Your task to perform on an android device: create a new album in the google photos Image 0: 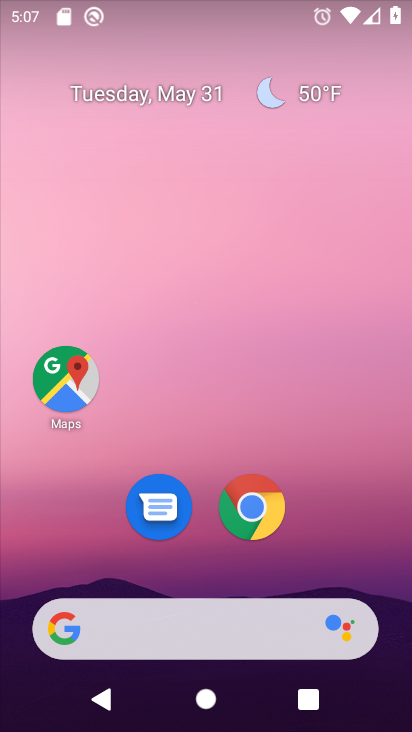
Step 0: drag from (327, 517) to (236, 65)
Your task to perform on an android device: create a new album in the google photos Image 1: 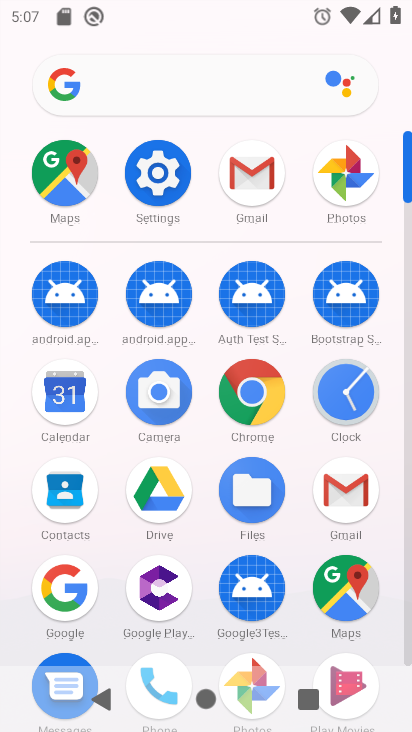
Step 1: click (337, 170)
Your task to perform on an android device: create a new album in the google photos Image 2: 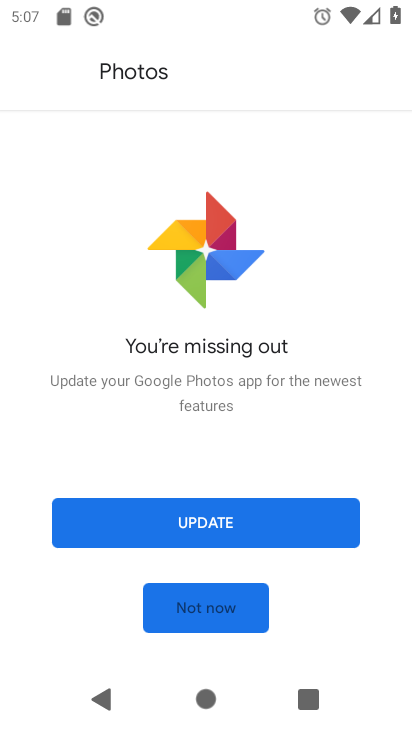
Step 2: click (226, 605)
Your task to perform on an android device: create a new album in the google photos Image 3: 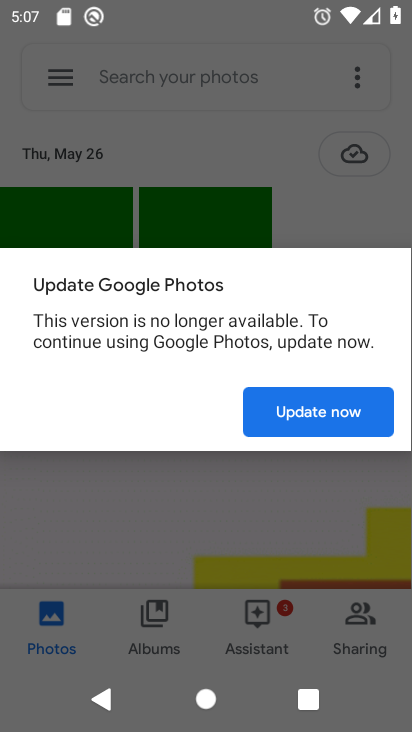
Step 3: click (341, 410)
Your task to perform on an android device: create a new album in the google photos Image 4: 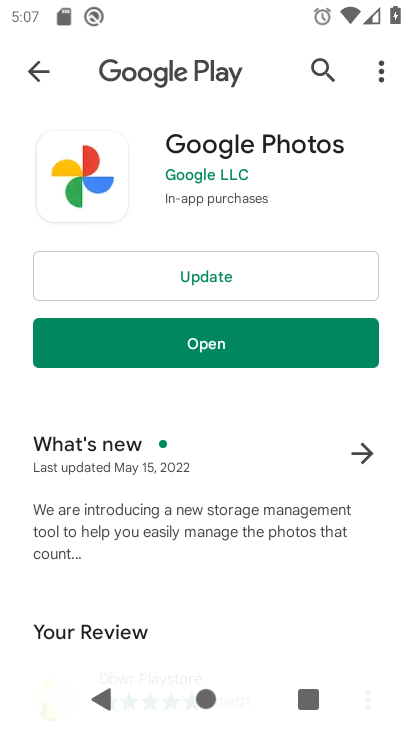
Step 4: click (311, 354)
Your task to perform on an android device: create a new album in the google photos Image 5: 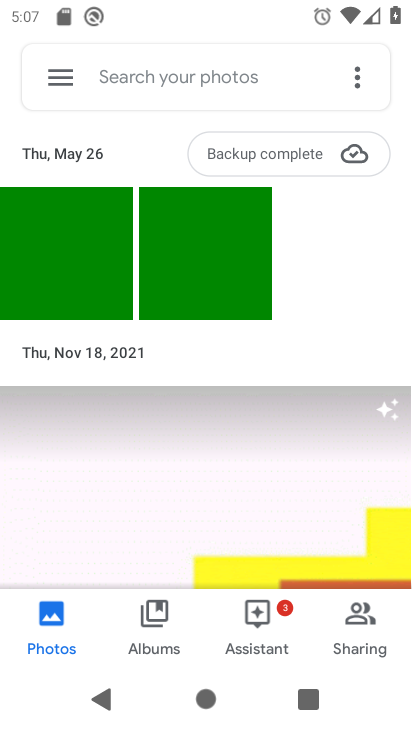
Step 5: click (159, 633)
Your task to perform on an android device: create a new album in the google photos Image 6: 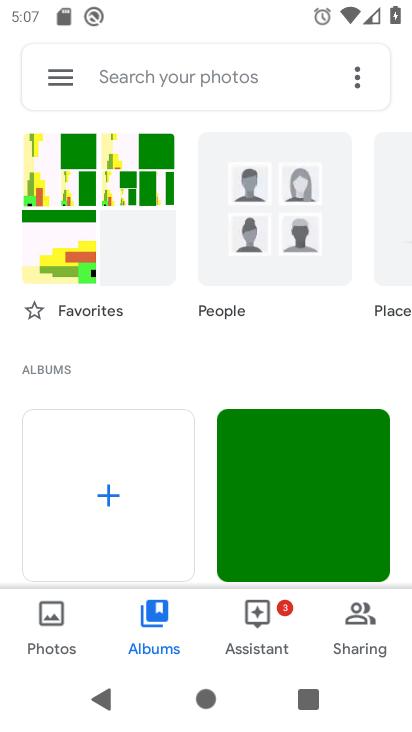
Step 6: click (111, 490)
Your task to perform on an android device: create a new album in the google photos Image 7: 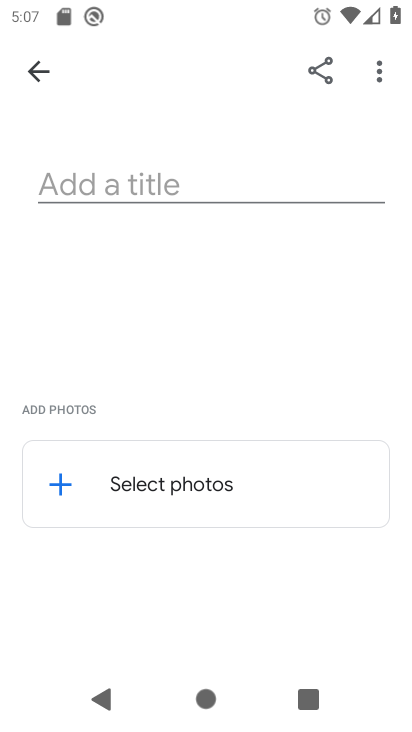
Step 7: click (160, 176)
Your task to perform on an android device: create a new album in the google photos Image 8: 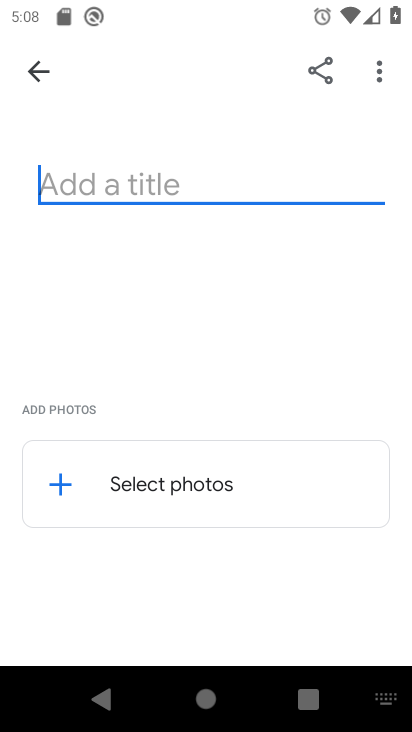
Step 8: type "Konark Temple Combodia"
Your task to perform on an android device: create a new album in the google photos Image 9: 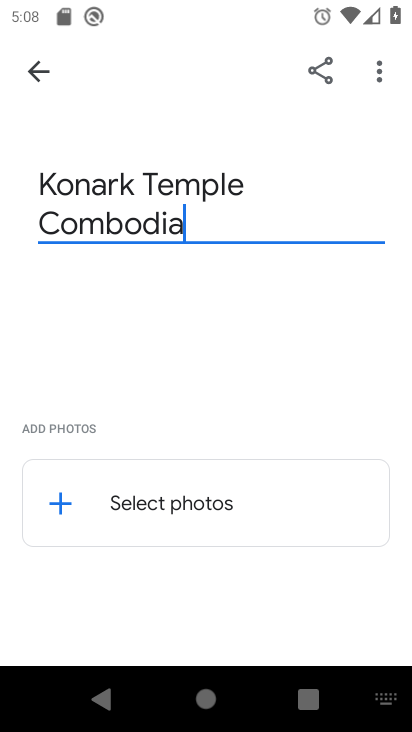
Step 9: click (62, 500)
Your task to perform on an android device: create a new album in the google photos Image 10: 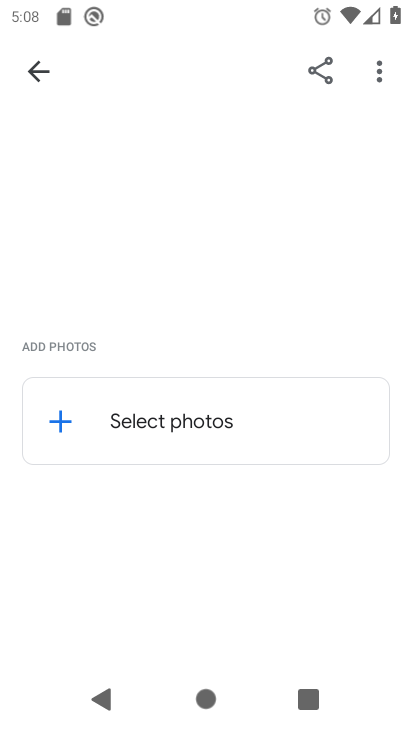
Step 10: click (58, 413)
Your task to perform on an android device: create a new album in the google photos Image 11: 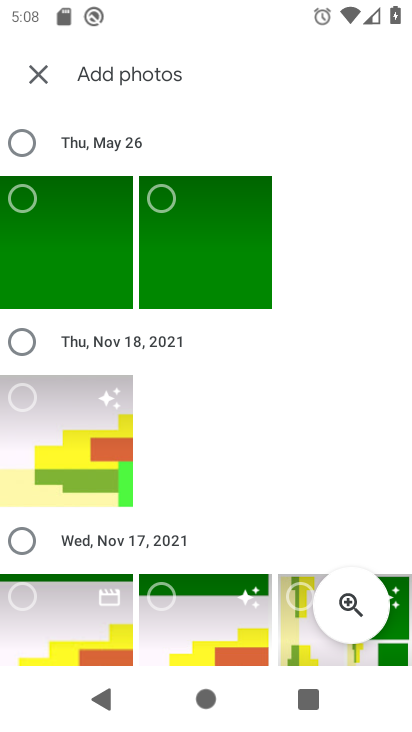
Step 11: click (25, 533)
Your task to perform on an android device: create a new album in the google photos Image 12: 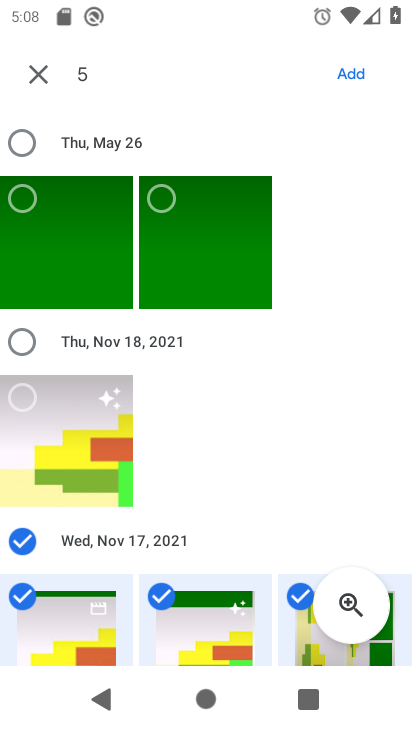
Step 12: click (339, 66)
Your task to perform on an android device: create a new album in the google photos Image 13: 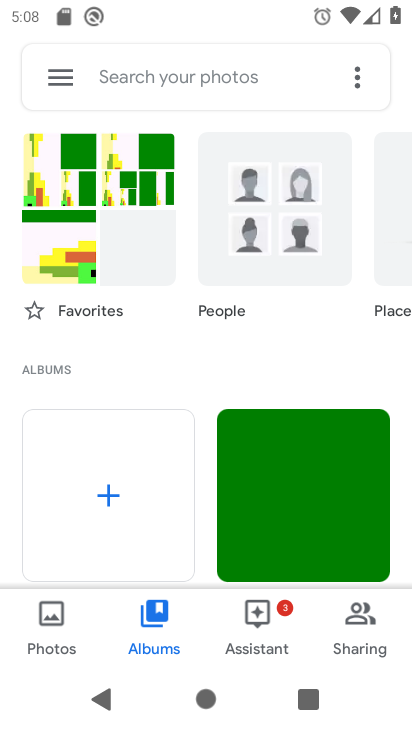
Step 13: task complete